Your task to perform on an android device: toggle sleep mode Image 0: 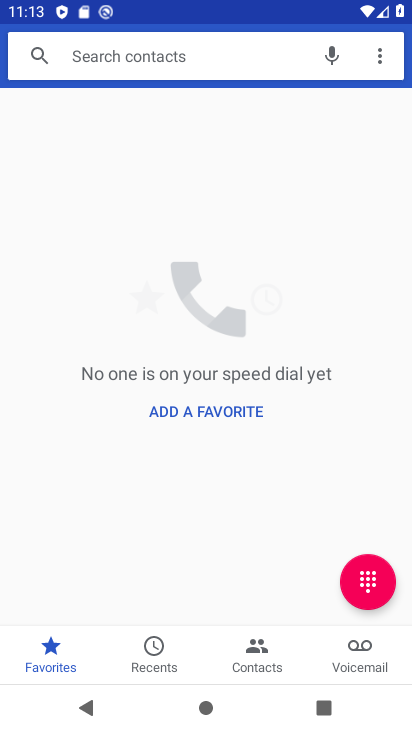
Step 0: press home button
Your task to perform on an android device: toggle sleep mode Image 1: 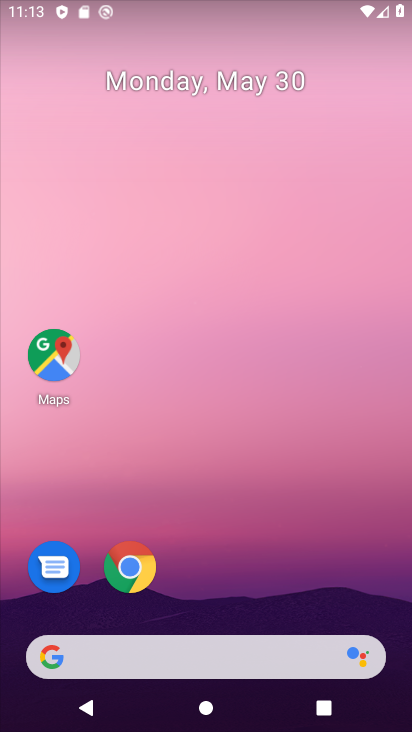
Step 1: drag from (358, 577) to (372, 95)
Your task to perform on an android device: toggle sleep mode Image 2: 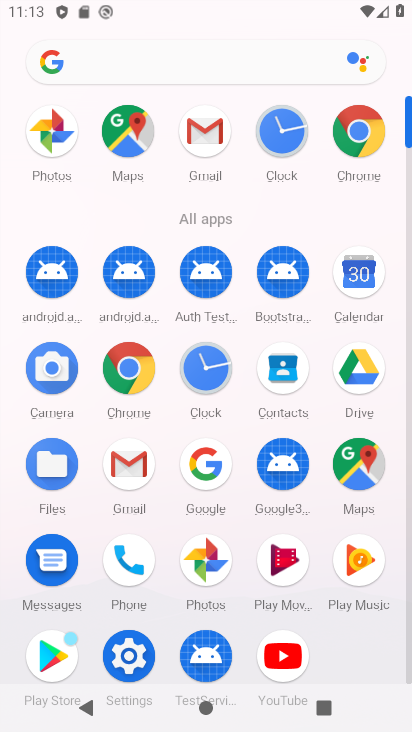
Step 2: click (122, 659)
Your task to perform on an android device: toggle sleep mode Image 3: 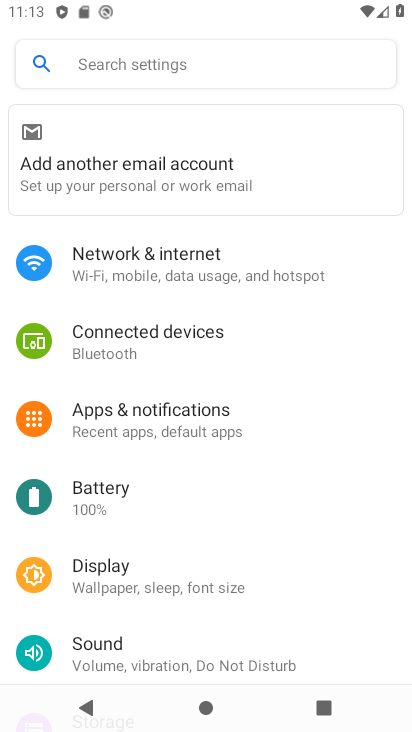
Step 3: click (204, 83)
Your task to perform on an android device: toggle sleep mode Image 4: 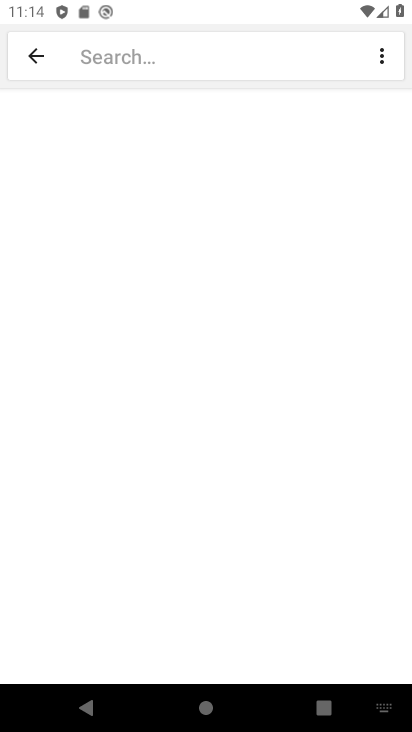
Step 4: type "sleep mode"
Your task to perform on an android device: toggle sleep mode Image 5: 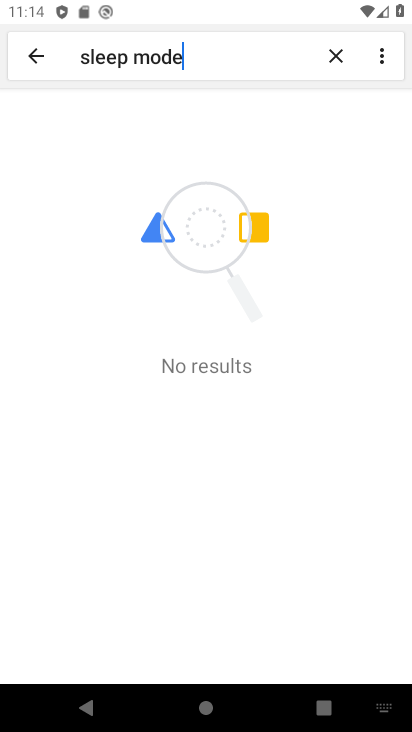
Step 5: task complete